Your task to perform on an android device: check battery use Image 0: 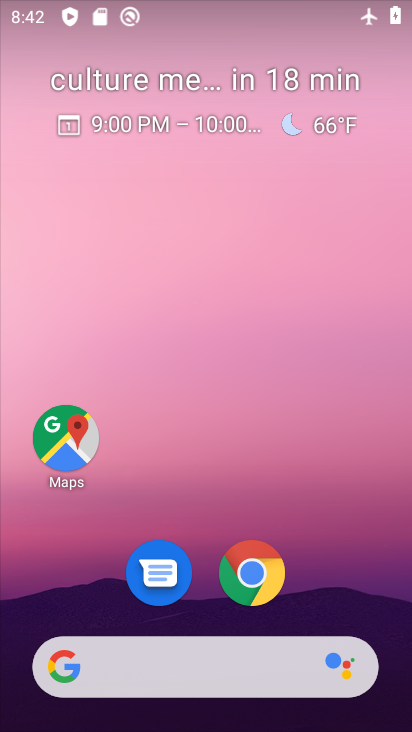
Step 0: drag from (218, 505) to (321, 33)
Your task to perform on an android device: check battery use Image 1: 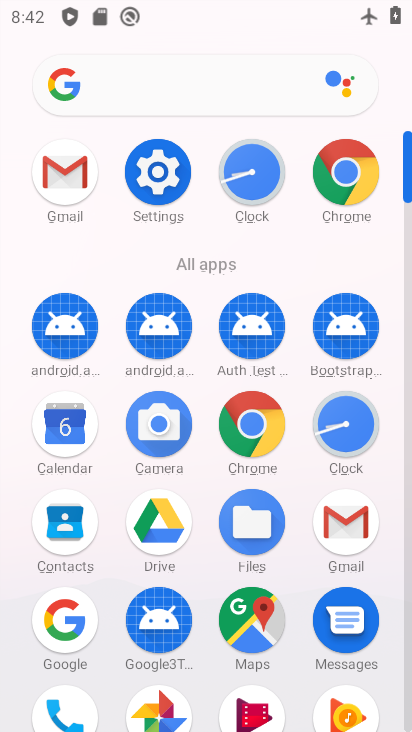
Step 1: click (164, 153)
Your task to perform on an android device: check battery use Image 2: 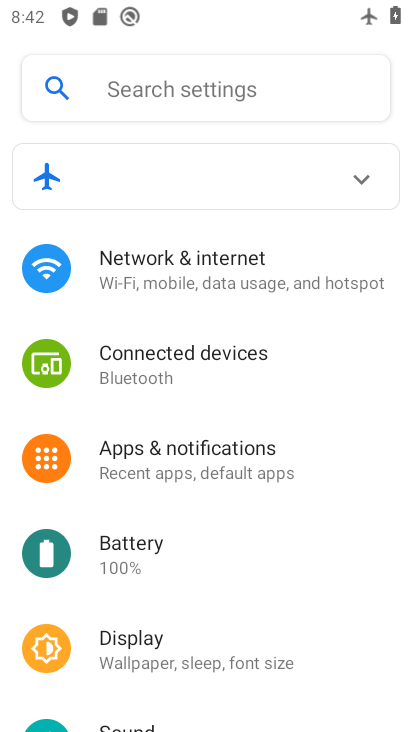
Step 2: click (182, 558)
Your task to perform on an android device: check battery use Image 3: 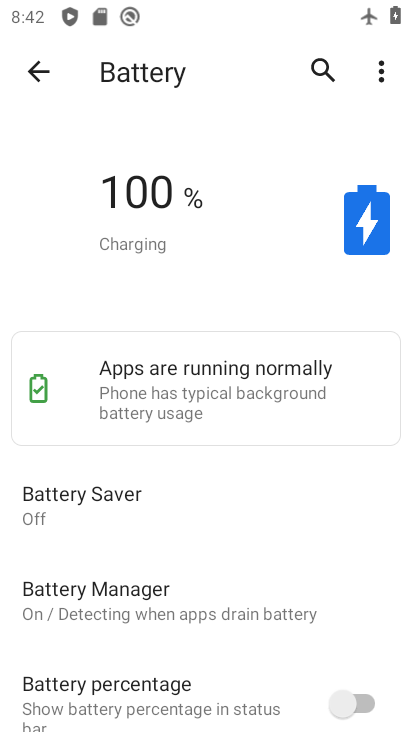
Step 3: drag from (378, 76) to (345, 106)
Your task to perform on an android device: check battery use Image 4: 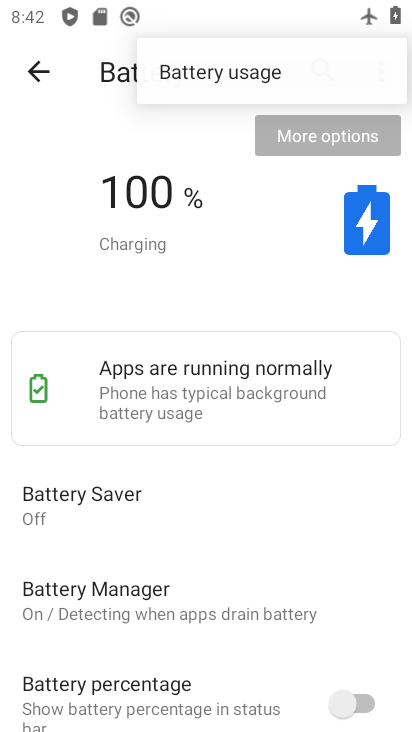
Step 4: click (374, 70)
Your task to perform on an android device: check battery use Image 5: 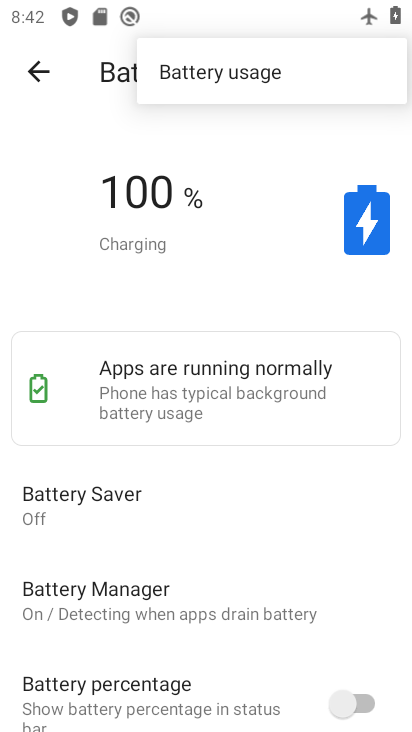
Step 5: click (299, 78)
Your task to perform on an android device: check battery use Image 6: 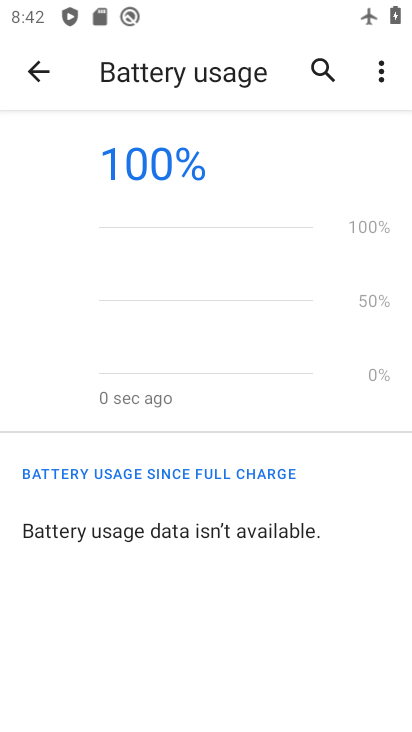
Step 6: task complete